Your task to perform on an android device: choose inbox layout in the gmail app Image 0: 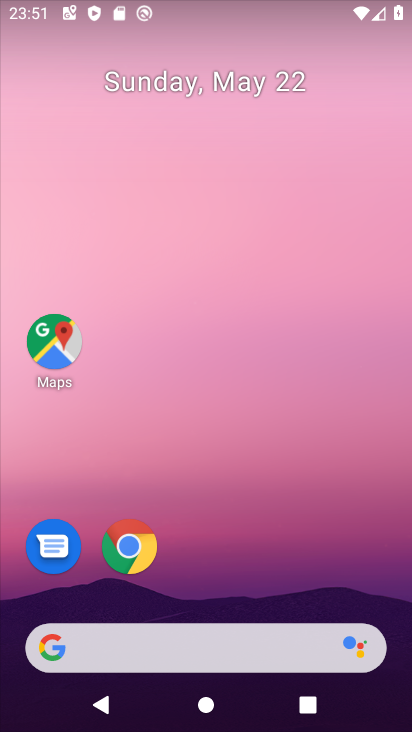
Step 0: drag from (165, 590) to (404, 240)
Your task to perform on an android device: choose inbox layout in the gmail app Image 1: 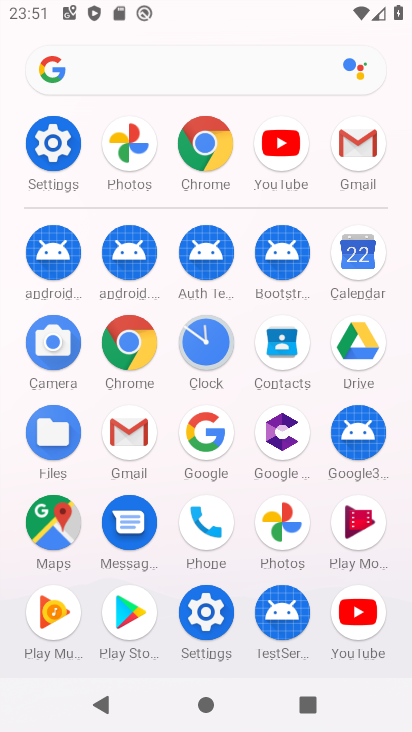
Step 1: click (137, 423)
Your task to perform on an android device: choose inbox layout in the gmail app Image 2: 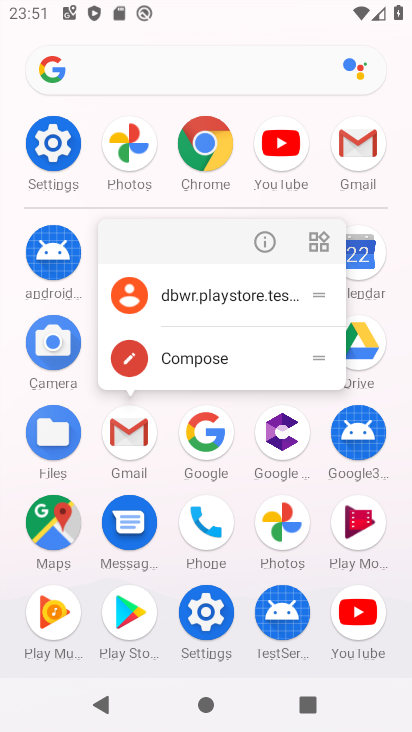
Step 2: click (259, 247)
Your task to perform on an android device: choose inbox layout in the gmail app Image 3: 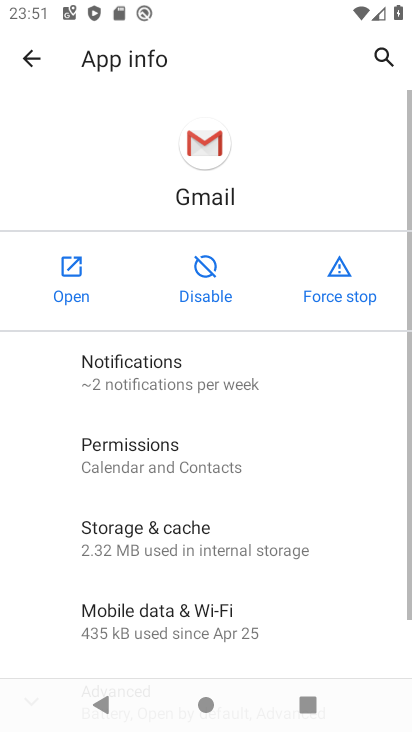
Step 3: click (58, 275)
Your task to perform on an android device: choose inbox layout in the gmail app Image 4: 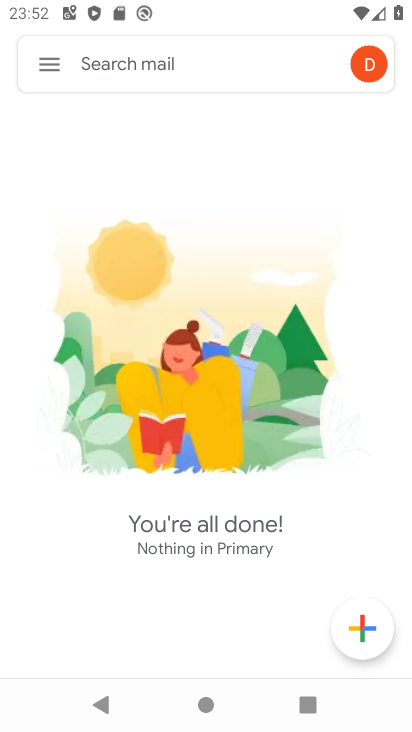
Step 4: drag from (257, 590) to (290, 220)
Your task to perform on an android device: choose inbox layout in the gmail app Image 5: 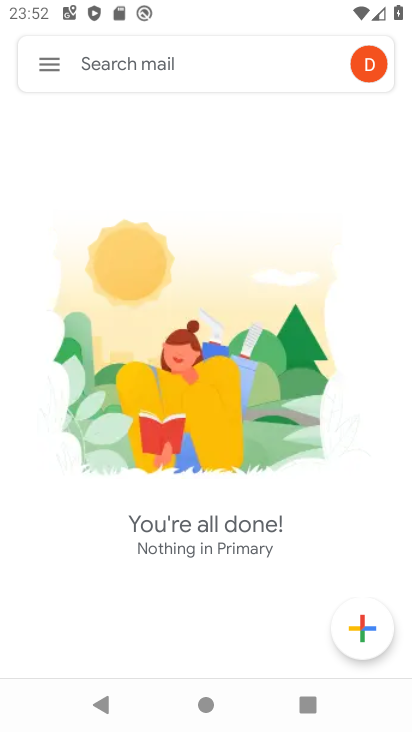
Step 5: click (28, 63)
Your task to perform on an android device: choose inbox layout in the gmail app Image 6: 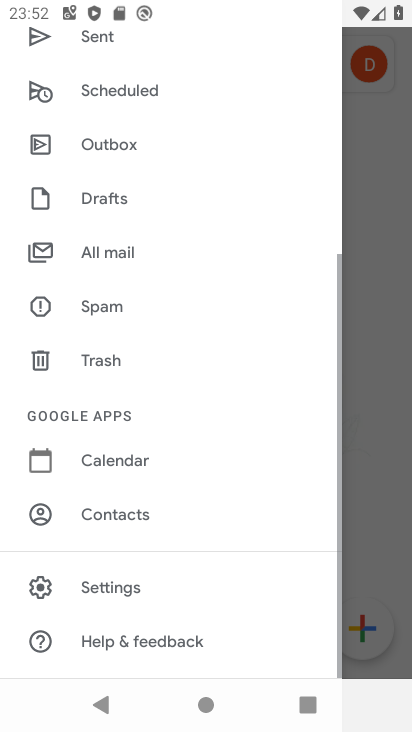
Step 6: drag from (212, 544) to (181, 186)
Your task to perform on an android device: choose inbox layout in the gmail app Image 7: 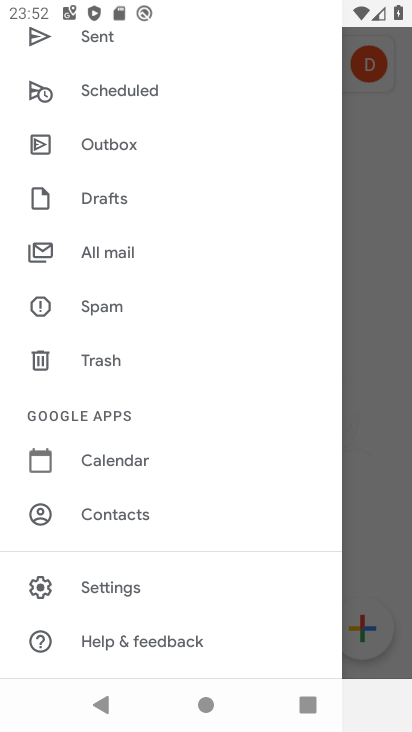
Step 7: click (121, 584)
Your task to perform on an android device: choose inbox layout in the gmail app Image 8: 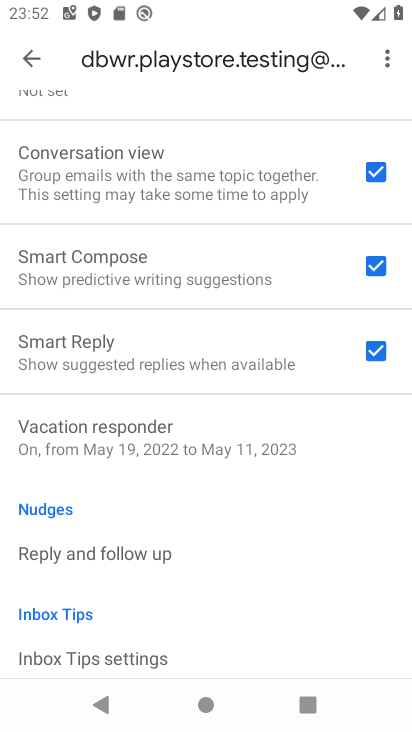
Step 8: drag from (219, 583) to (283, 321)
Your task to perform on an android device: choose inbox layout in the gmail app Image 9: 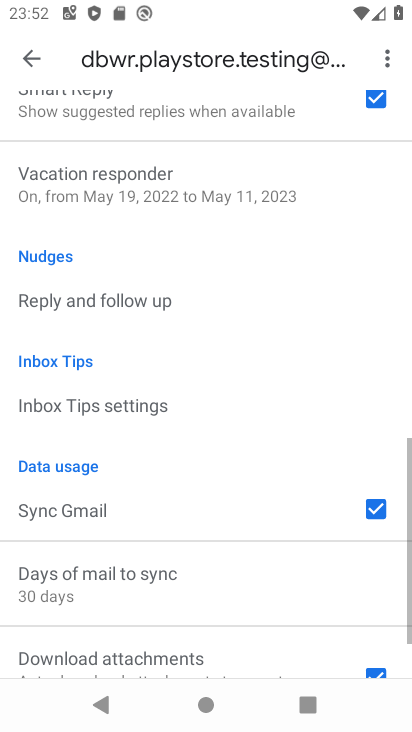
Step 9: drag from (169, 634) to (281, 155)
Your task to perform on an android device: choose inbox layout in the gmail app Image 10: 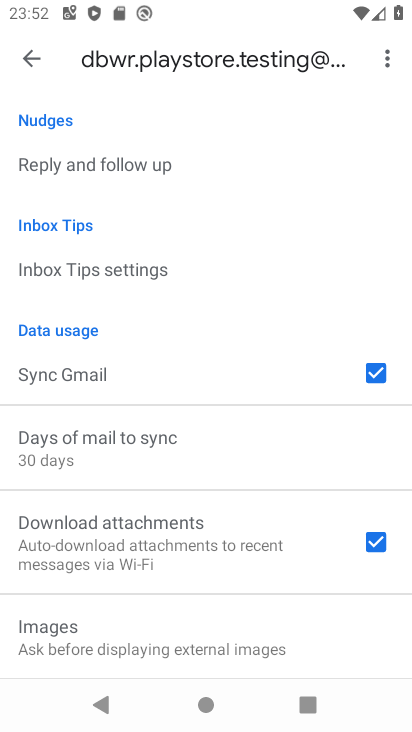
Step 10: drag from (292, 156) to (255, 723)
Your task to perform on an android device: choose inbox layout in the gmail app Image 11: 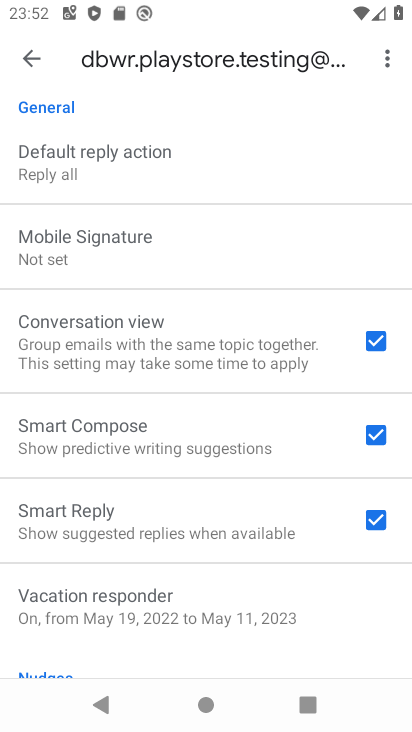
Step 11: click (39, 50)
Your task to perform on an android device: choose inbox layout in the gmail app Image 12: 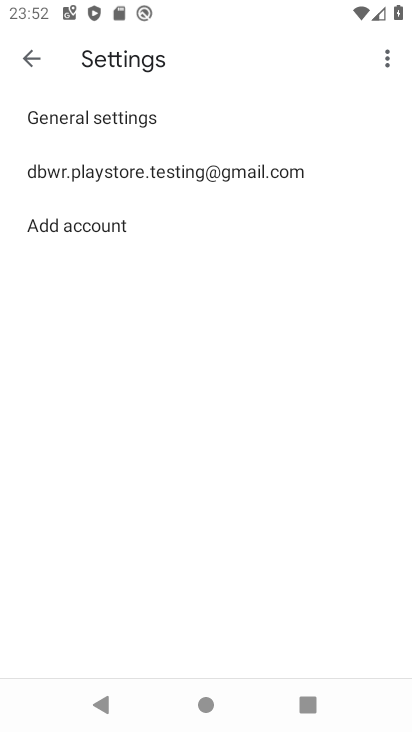
Step 12: click (37, 50)
Your task to perform on an android device: choose inbox layout in the gmail app Image 13: 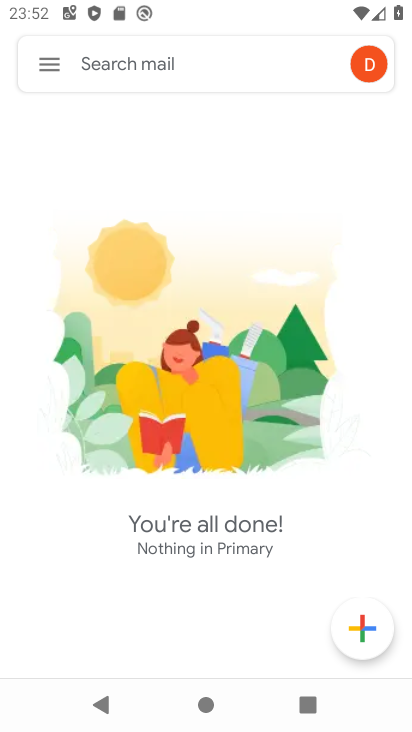
Step 13: click (53, 76)
Your task to perform on an android device: choose inbox layout in the gmail app Image 14: 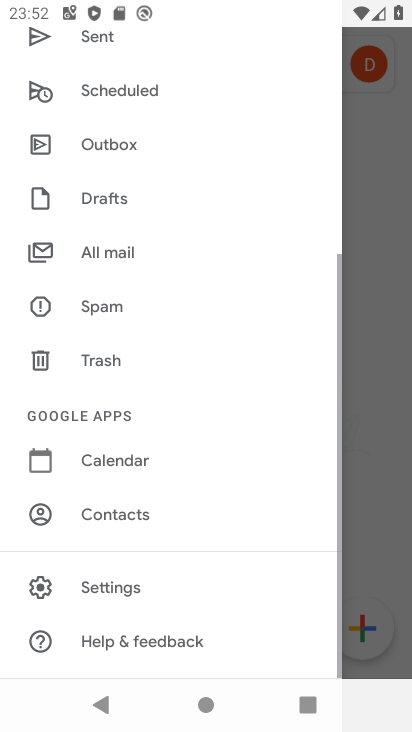
Step 14: drag from (89, 104) to (243, 709)
Your task to perform on an android device: choose inbox layout in the gmail app Image 15: 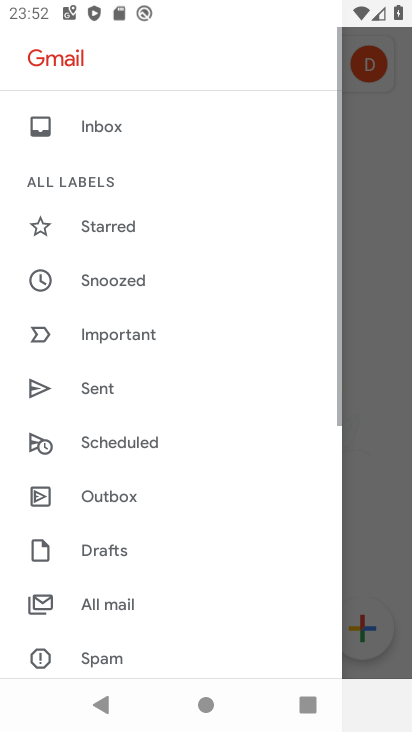
Step 15: click (132, 128)
Your task to perform on an android device: choose inbox layout in the gmail app Image 16: 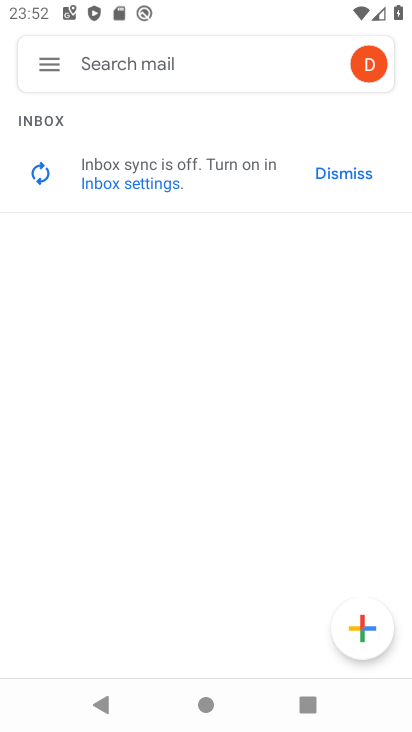
Step 16: task complete